Your task to perform on an android device: Search for sushi restaurants on Maps Image 0: 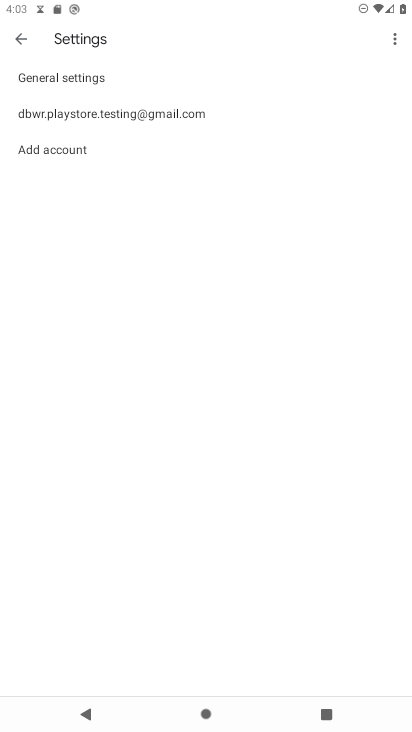
Step 0: press home button
Your task to perform on an android device: Search for sushi restaurants on Maps Image 1: 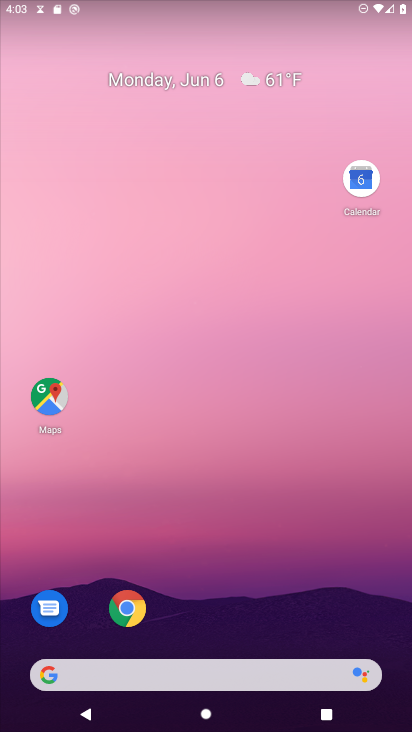
Step 1: click (56, 404)
Your task to perform on an android device: Search for sushi restaurants on Maps Image 2: 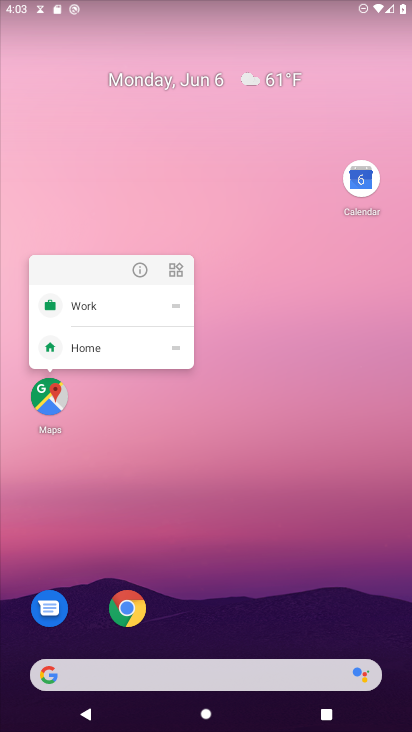
Step 2: click (55, 389)
Your task to perform on an android device: Search for sushi restaurants on Maps Image 3: 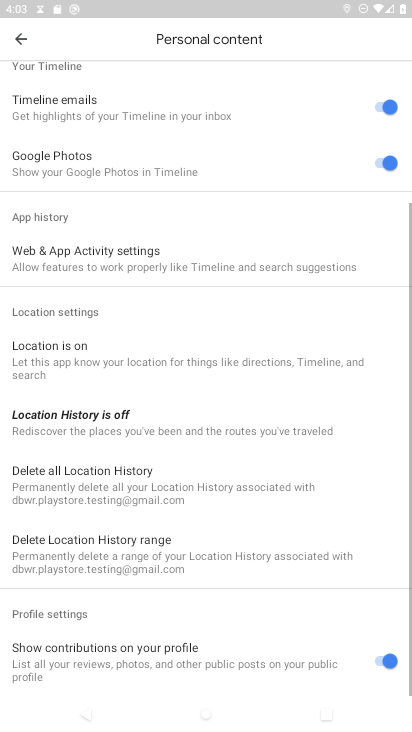
Step 3: click (12, 44)
Your task to perform on an android device: Search for sushi restaurants on Maps Image 4: 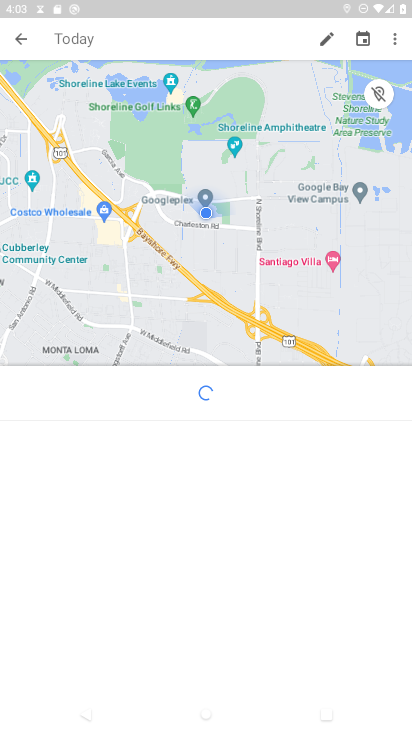
Step 4: click (20, 53)
Your task to perform on an android device: Search for sushi restaurants on Maps Image 5: 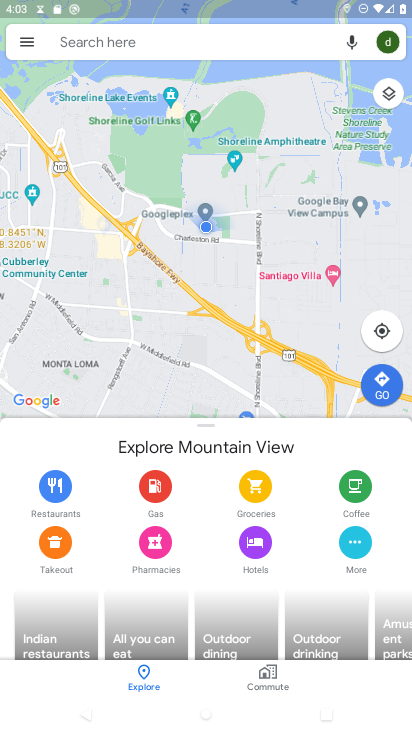
Step 5: click (131, 47)
Your task to perform on an android device: Search for sushi restaurants on Maps Image 6: 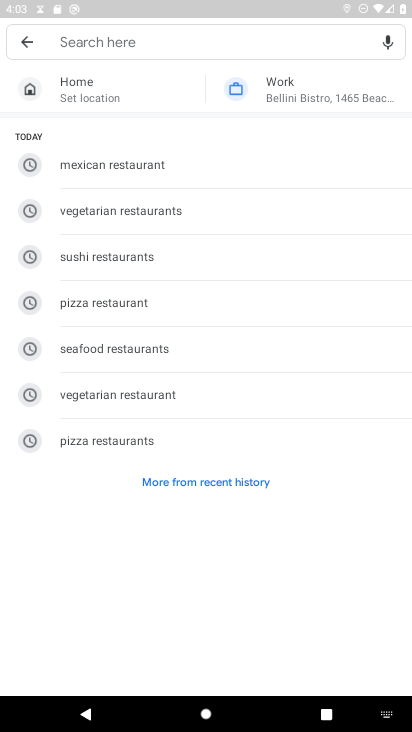
Step 6: type "sushi restaurants"
Your task to perform on an android device: Search for sushi restaurants on Maps Image 7: 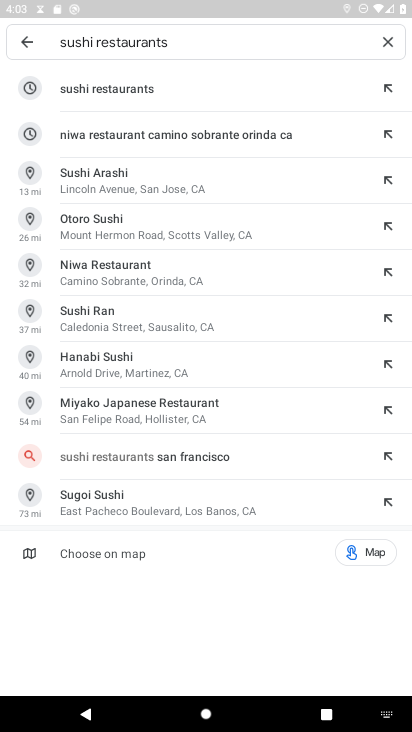
Step 7: click (62, 80)
Your task to perform on an android device: Search for sushi restaurants on Maps Image 8: 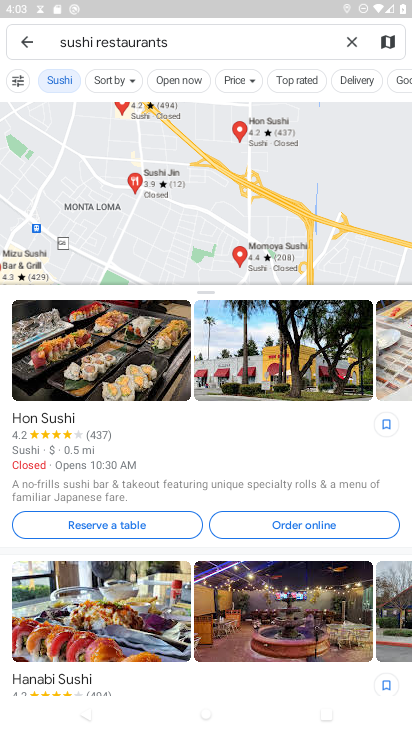
Step 8: task complete